Your task to perform on an android device: Check the weather Image 0: 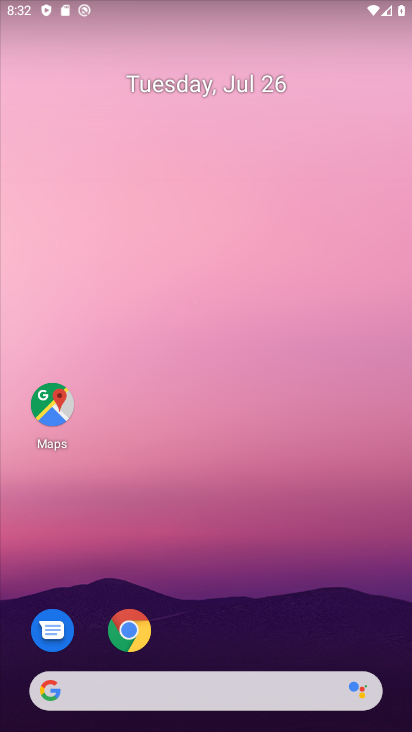
Step 0: drag from (195, 607) to (104, 110)
Your task to perform on an android device: Check the weather Image 1: 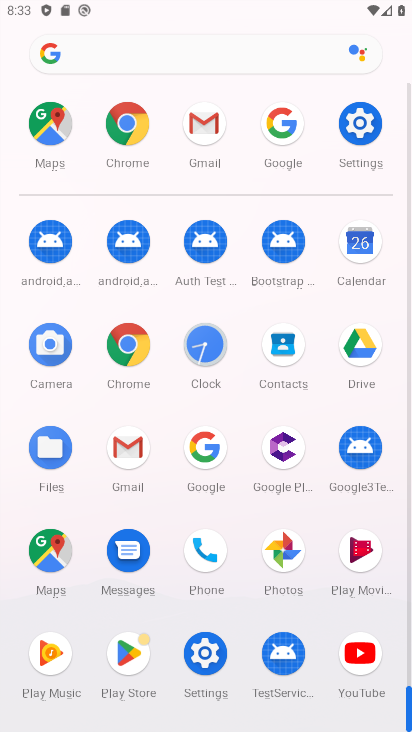
Step 1: click (208, 440)
Your task to perform on an android device: Check the weather Image 2: 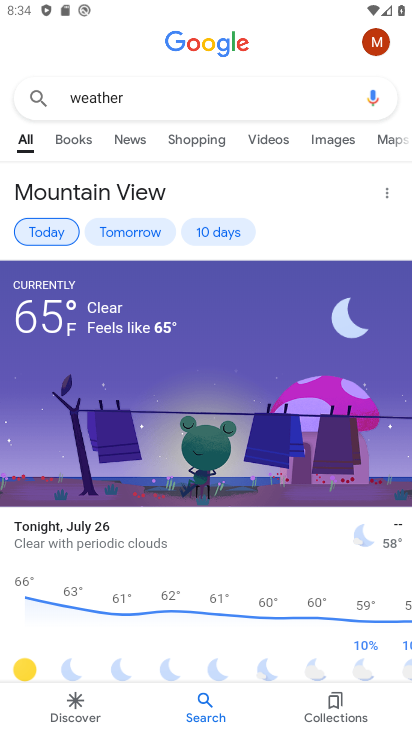
Step 2: task complete